Your task to perform on an android device: Open the stopwatch Image 0: 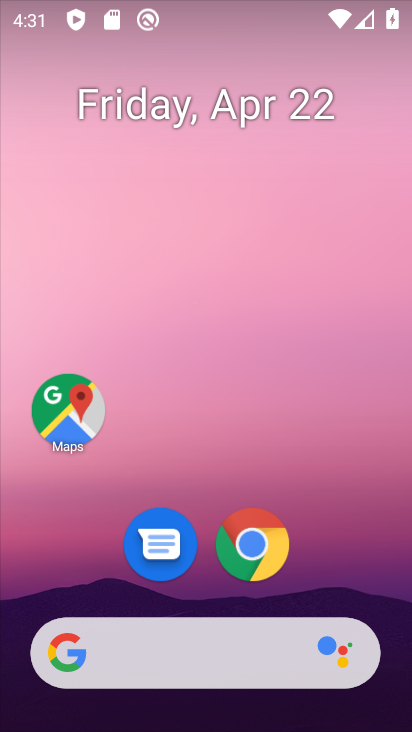
Step 0: drag from (171, 605) to (205, 124)
Your task to perform on an android device: Open the stopwatch Image 1: 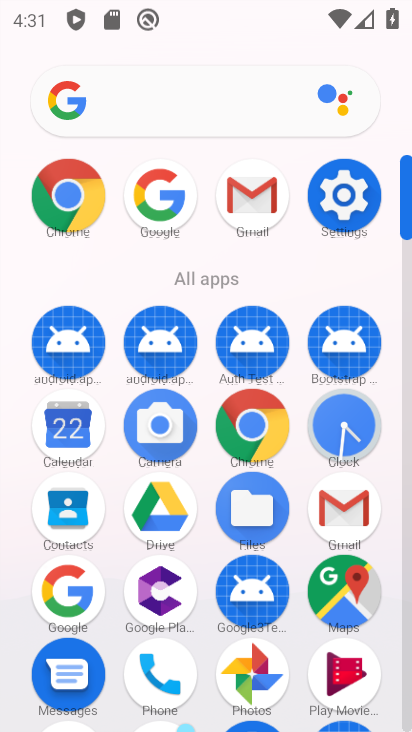
Step 1: click (353, 434)
Your task to perform on an android device: Open the stopwatch Image 2: 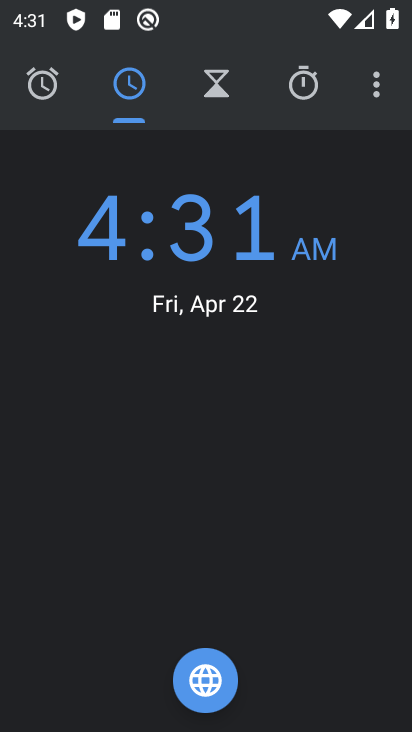
Step 2: click (306, 90)
Your task to perform on an android device: Open the stopwatch Image 3: 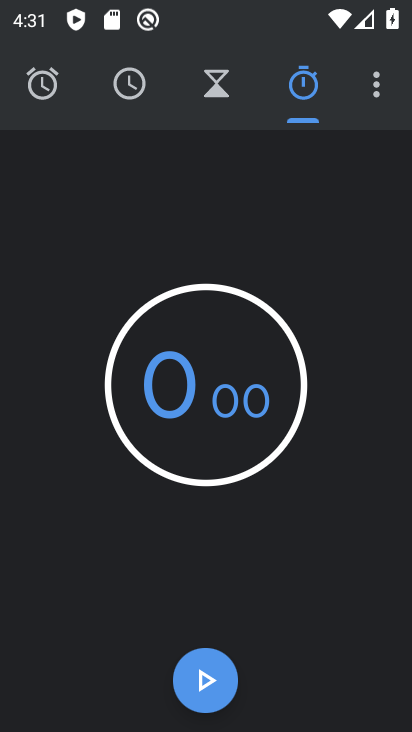
Step 3: task complete